Your task to perform on an android device: turn on the 12-hour format for clock Image 0: 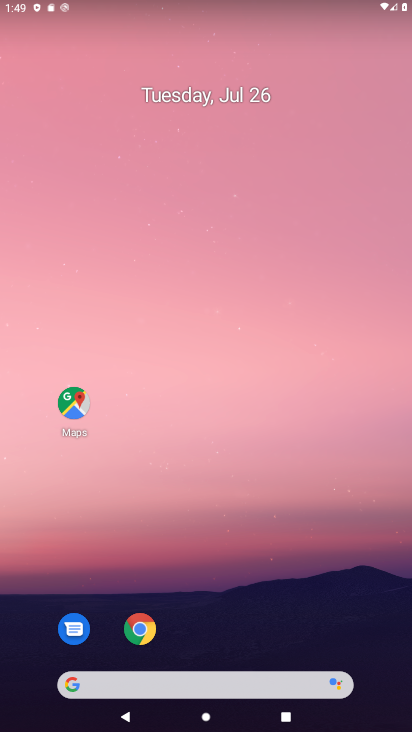
Step 0: drag from (231, 637) to (239, 182)
Your task to perform on an android device: turn on the 12-hour format for clock Image 1: 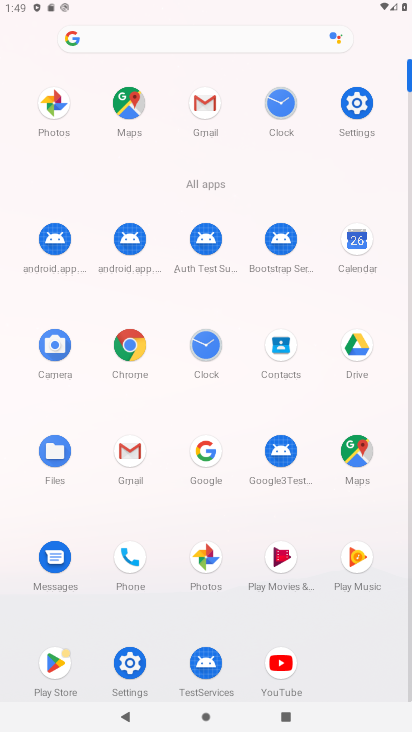
Step 1: click (279, 136)
Your task to perform on an android device: turn on the 12-hour format for clock Image 2: 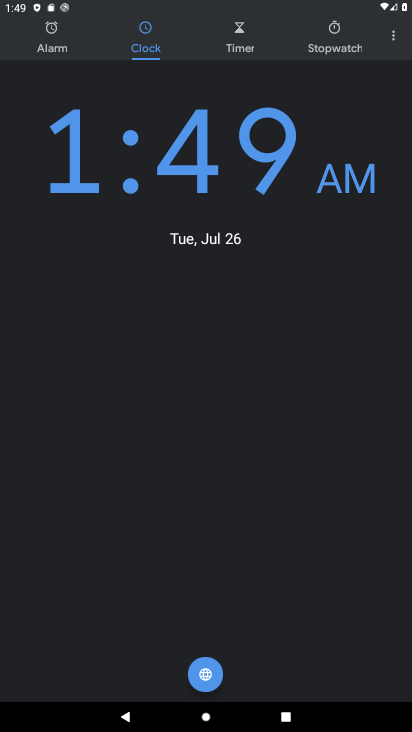
Step 2: click (392, 34)
Your task to perform on an android device: turn on the 12-hour format for clock Image 3: 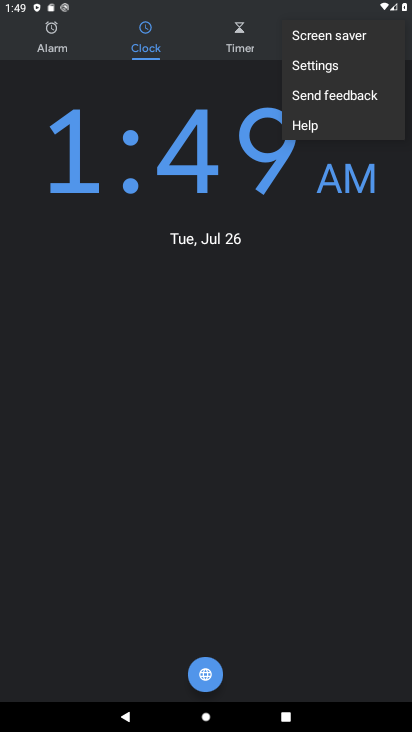
Step 3: click (332, 71)
Your task to perform on an android device: turn on the 12-hour format for clock Image 4: 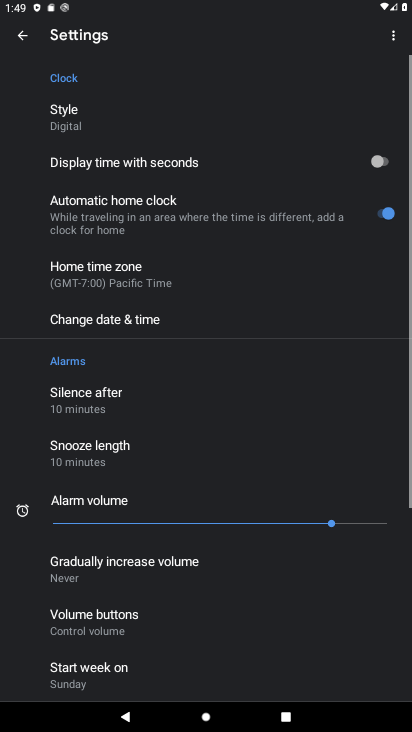
Step 4: click (166, 318)
Your task to perform on an android device: turn on the 12-hour format for clock Image 5: 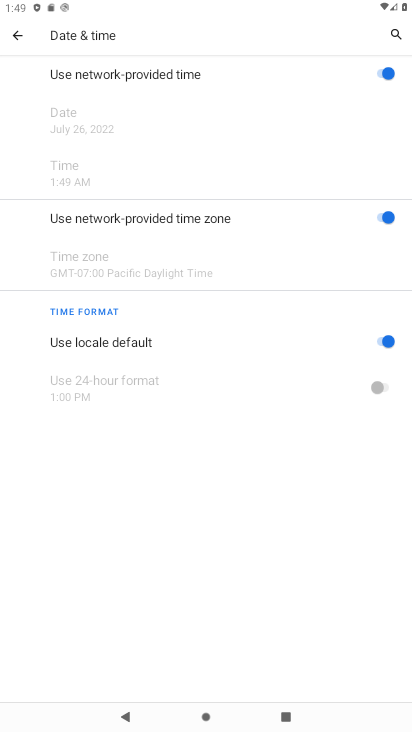
Step 5: task complete